Your task to perform on an android device: choose inbox layout in the gmail app Image 0: 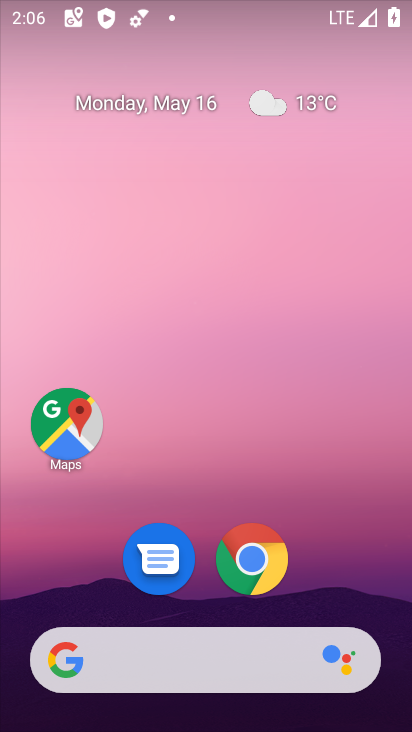
Step 0: drag from (177, 558) to (240, 134)
Your task to perform on an android device: choose inbox layout in the gmail app Image 1: 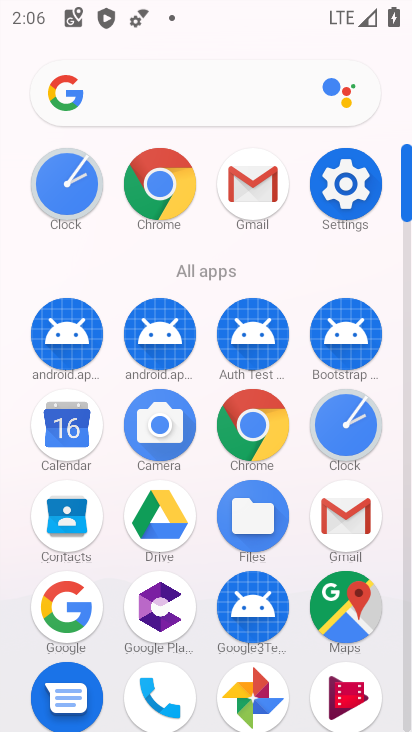
Step 1: click (263, 192)
Your task to perform on an android device: choose inbox layout in the gmail app Image 2: 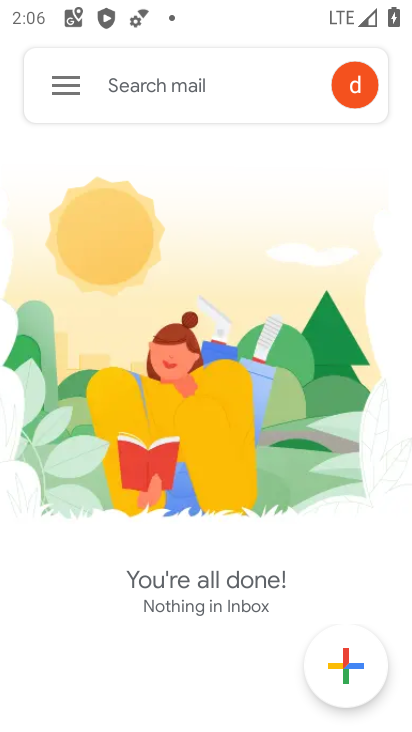
Step 2: click (54, 75)
Your task to perform on an android device: choose inbox layout in the gmail app Image 3: 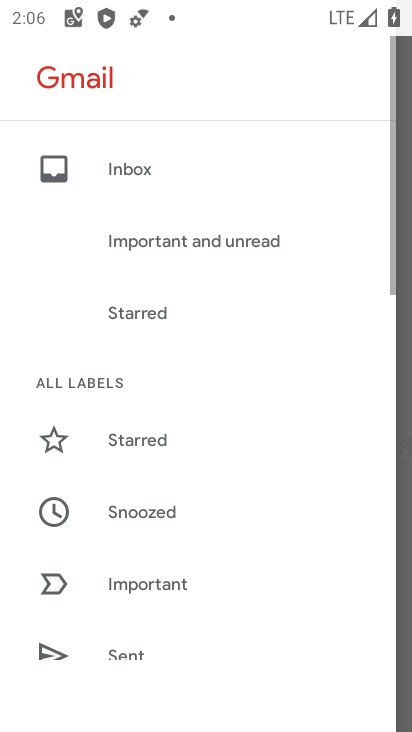
Step 3: drag from (134, 569) to (257, 37)
Your task to perform on an android device: choose inbox layout in the gmail app Image 4: 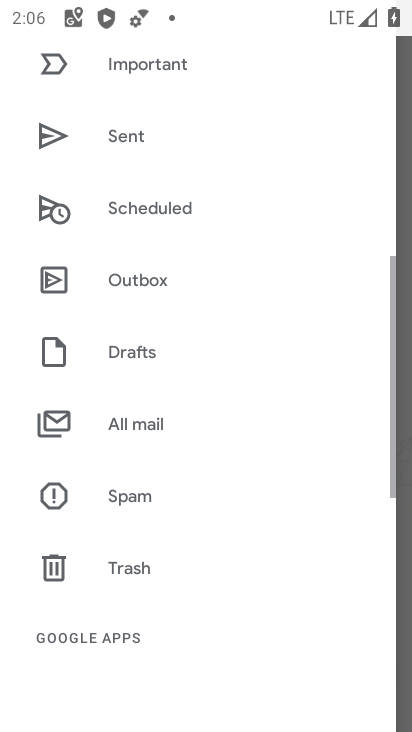
Step 4: drag from (154, 602) to (217, 117)
Your task to perform on an android device: choose inbox layout in the gmail app Image 5: 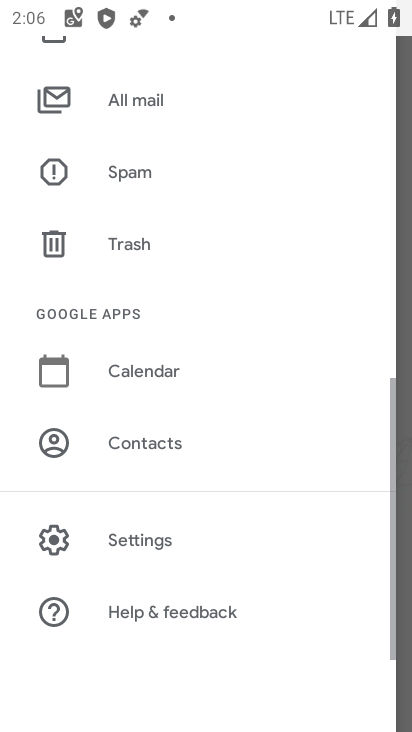
Step 5: click (160, 538)
Your task to perform on an android device: choose inbox layout in the gmail app Image 6: 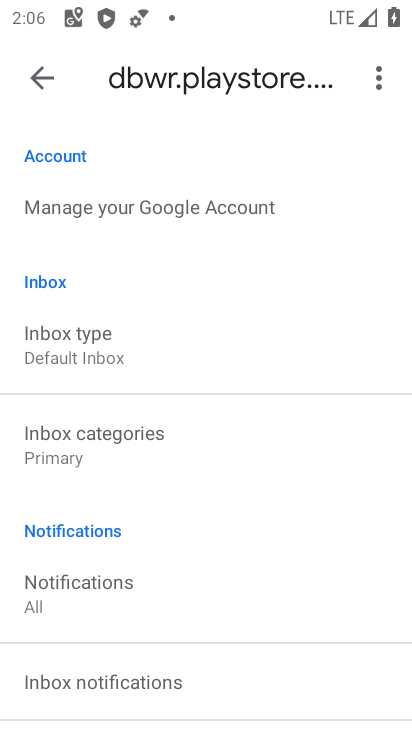
Step 6: click (114, 355)
Your task to perform on an android device: choose inbox layout in the gmail app Image 7: 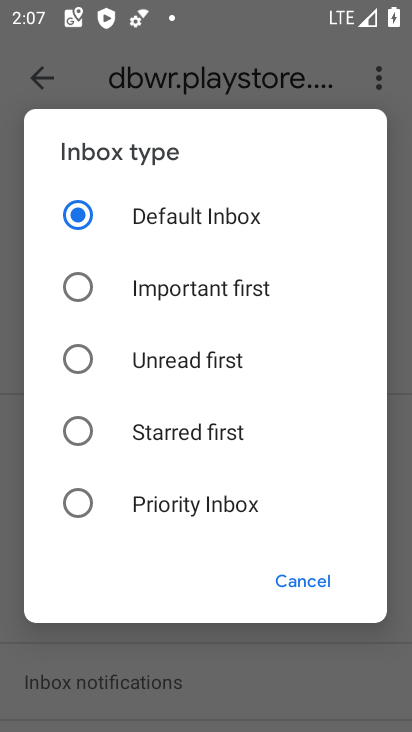
Step 7: click (79, 207)
Your task to perform on an android device: choose inbox layout in the gmail app Image 8: 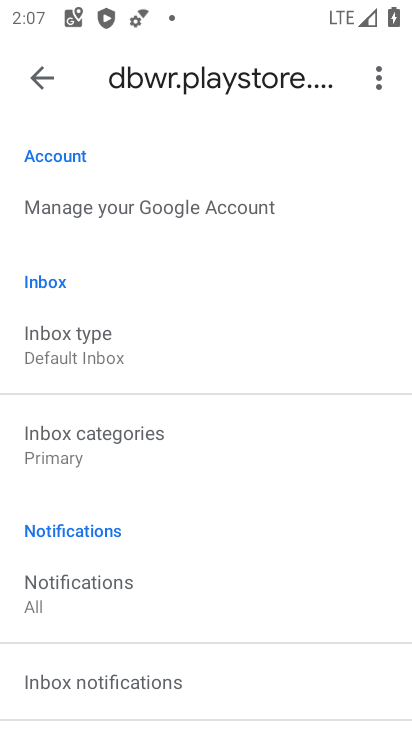
Step 8: task complete